Your task to perform on an android device: star an email in the gmail app Image 0: 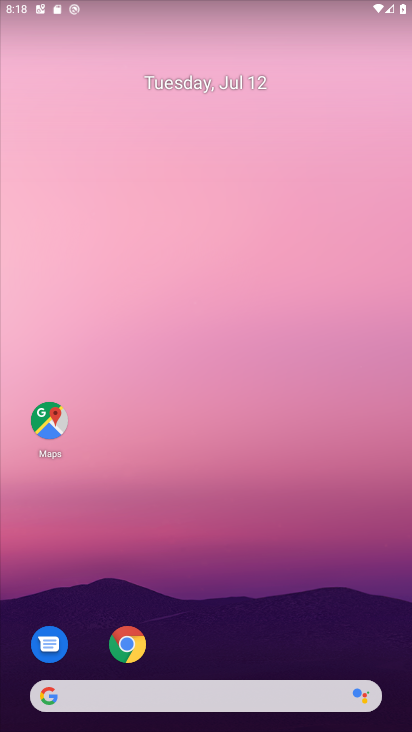
Step 0: drag from (360, 597) to (393, 29)
Your task to perform on an android device: star an email in the gmail app Image 1: 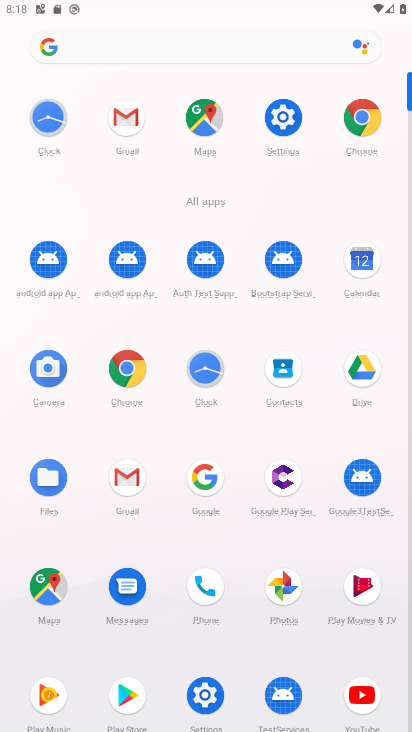
Step 1: click (115, 130)
Your task to perform on an android device: star an email in the gmail app Image 2: 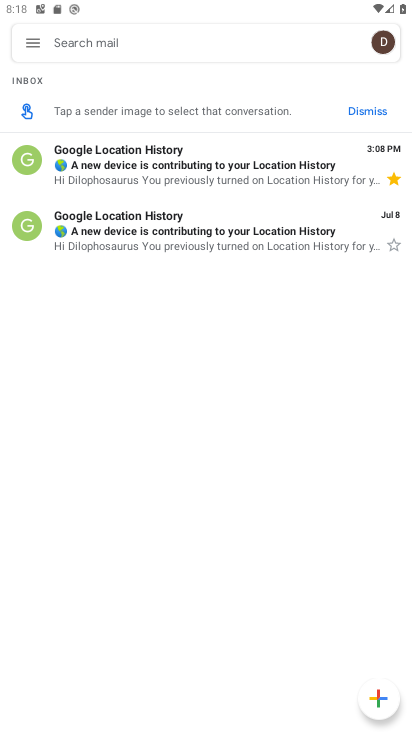
Step 2: click (402, 239)
Your task to perform on an android device: star an email in the gmail app Image 3: 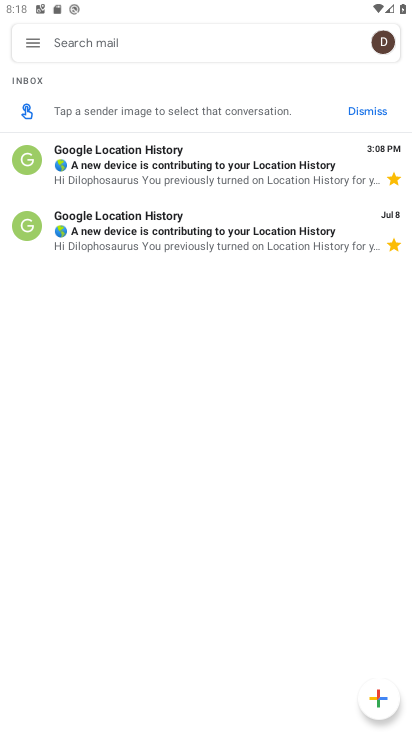
Step 3: task complete